Your task to perform on an android device: Go to calendar. Show me events next week Image 0: 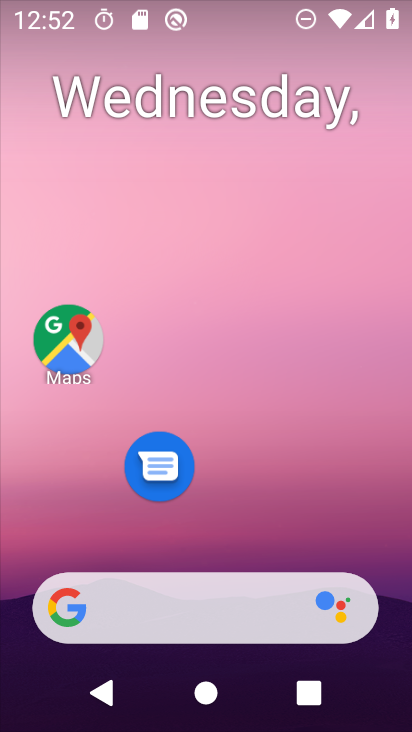
Step 0: drag from (231, 529) to (227, 179)
Your task to perform on an android device: Go to calendar. Show me events next week Image 1: 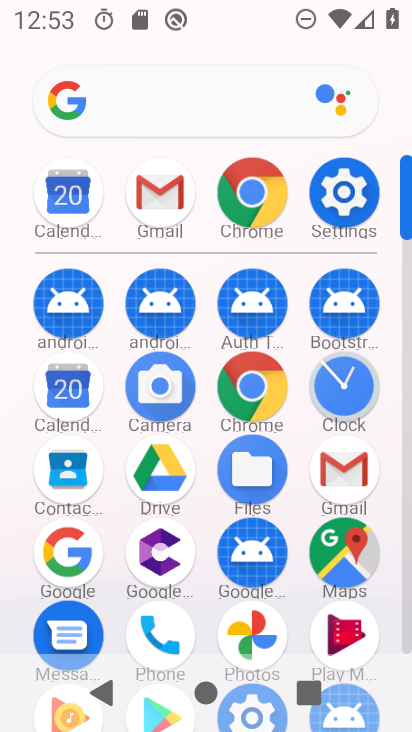
Step 1: click (69, 387)
Your task to perform on an android device: Go to calendar. Show me events next week Image 2: 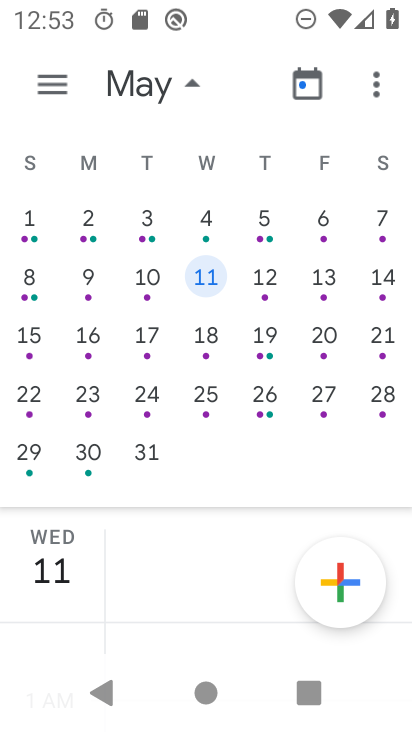
Step 2: click (269, 273)
Your task to perform on an android device: Go to calendar. Show me events next week Image 3: 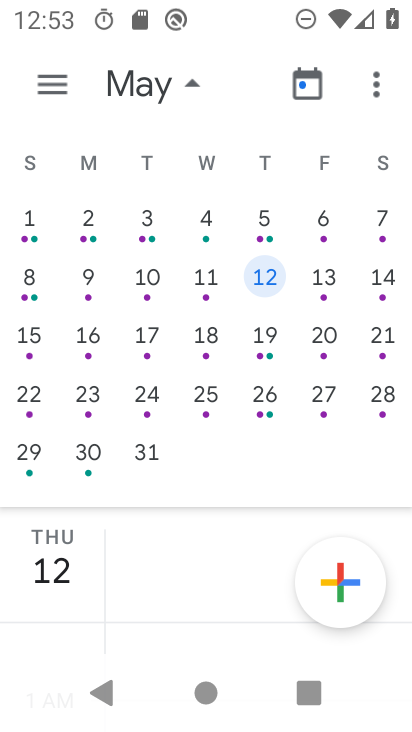
Step 3: click (269, 223)
Your task to perform on an android device: Go to calendar. Show me events next week Image 4: 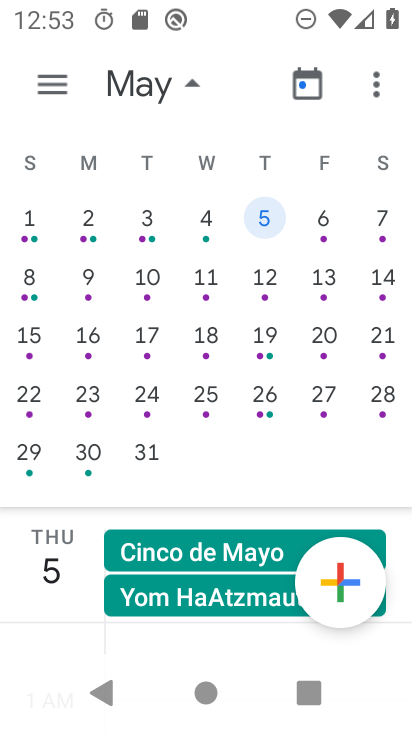
Step 4: click (180, 90)
Your task to perform on an android device: Go to calendar. Show me events next week Image 5: 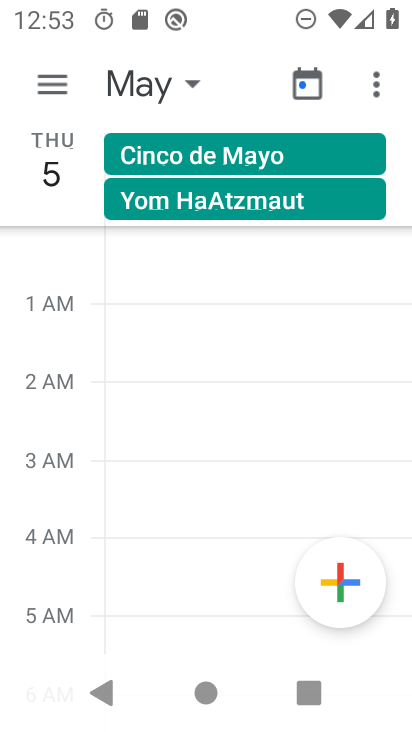
Step 5: click (172, 79)
Your task to perform on an android device: Go to calendar. Show me events next week Image 6: 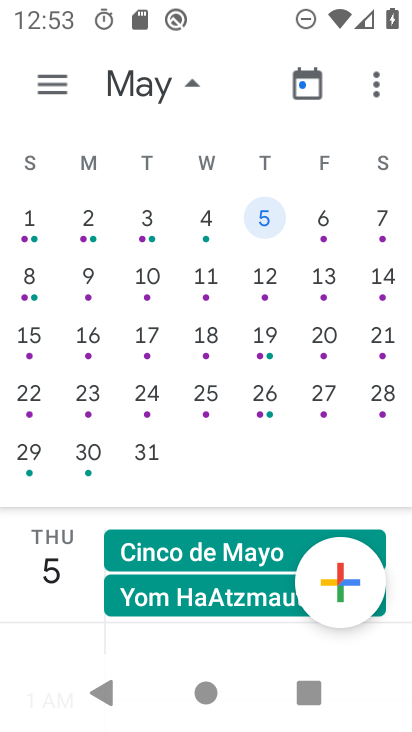
Step 6: drag from (22, 317) to (337, 470)
Your task to perform on an android device: Go to calendar. Show me events next week Image 7: 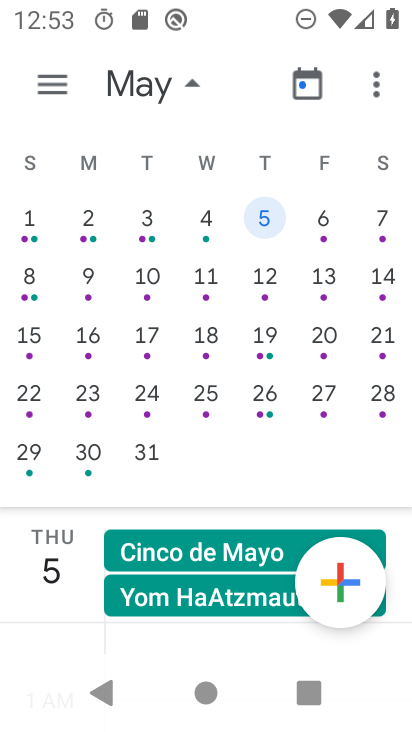
Step 7: drag from (125, 302) to (362, 389)
Your task to perform on an android device: Go to calendar. Show me events next week Image 8: 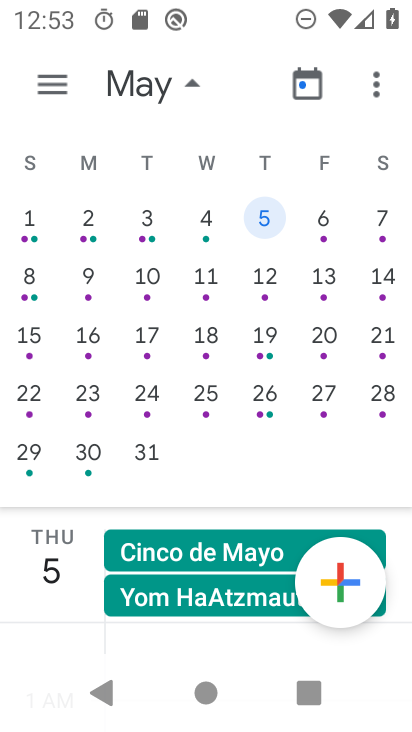
Step 8: drag from (66, 307) to (403, 372)
Your task to perform on an android device: Go to calendar. Show me events next week Image 9: 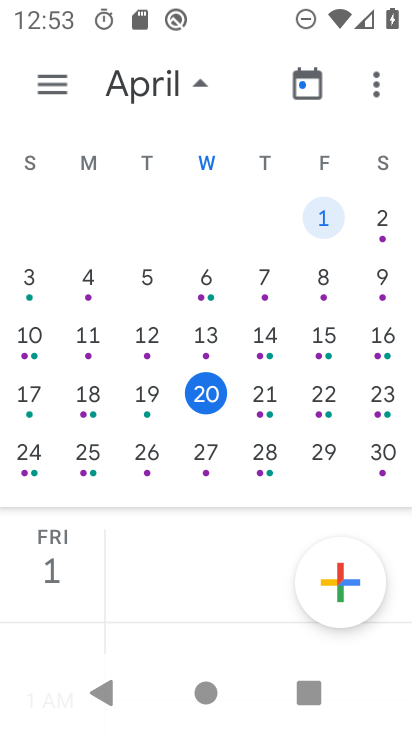
Step 9: click (147, 439)
Your task to perform on an android device: Go to calendar. Show me events next week Image 10: 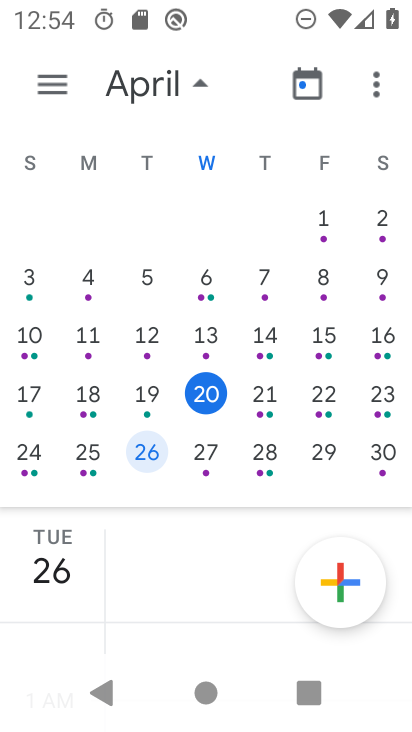
Step 10: task complete